Your task to perform on an android device: add a contact in the contacts app Image 0: 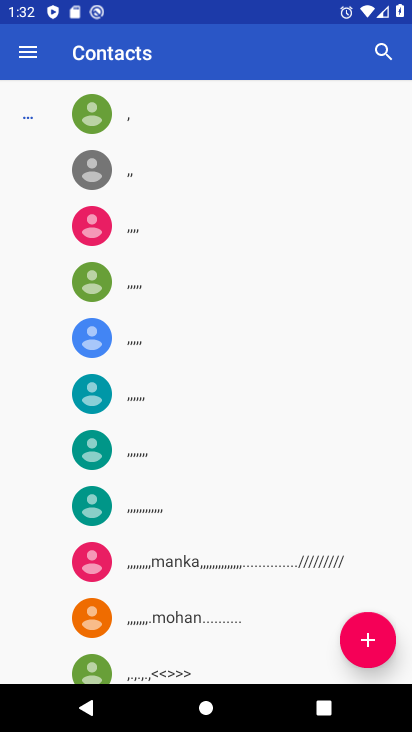
Step 0: click (364, 636)
Your task to perform on an android device: add a contact in the contacts app Image 1: 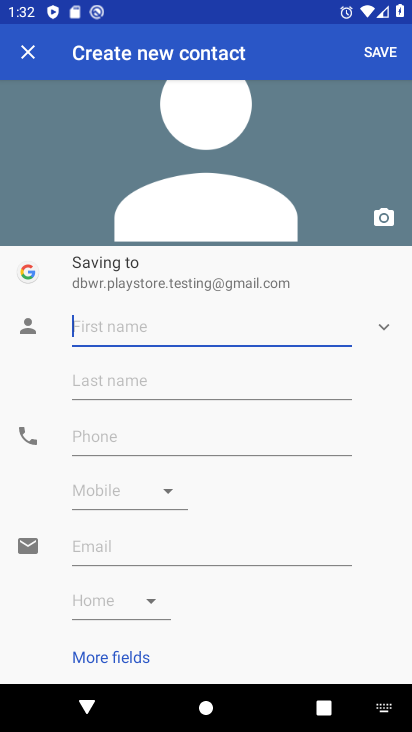
Step 1: type "iop"
Your task to perform on an android device: add a contact in the contacts app Image 2: 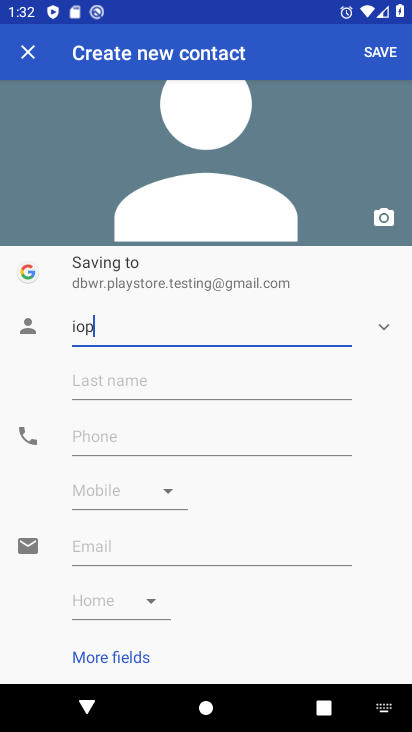
Step 2: type ""
Your task to perform on an android device: add a contact in the contacts app Image 3: 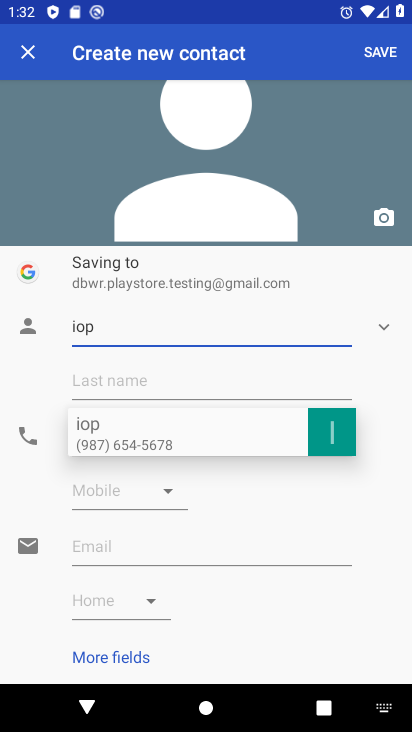
Step 3: click (211, 442)
Your task to perform on an android device: add a contact in the contacts app Image 4: 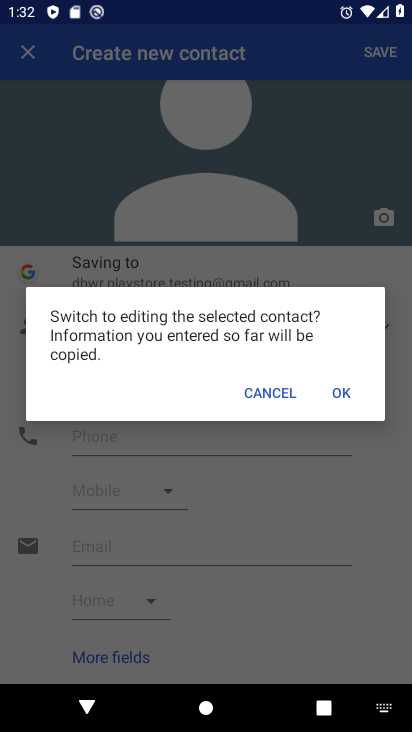
Step 4: click (330, 384)
Your task to perform on an android device: add a contact in the contacts app Image 5: 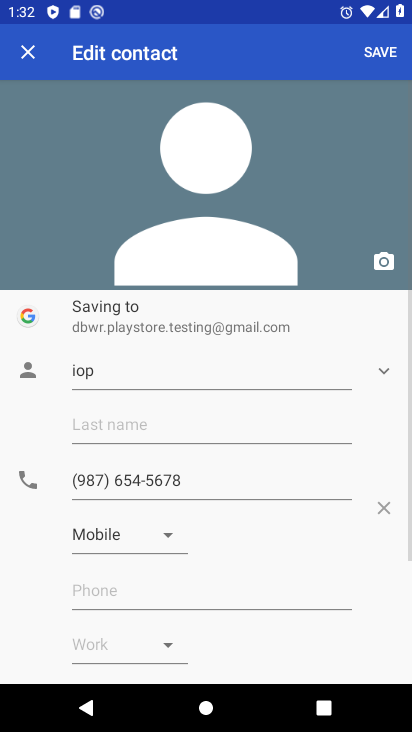
Step 5: click (380, 41)
Your task to perform on an android device: add a contact in the contacts app Image 6: 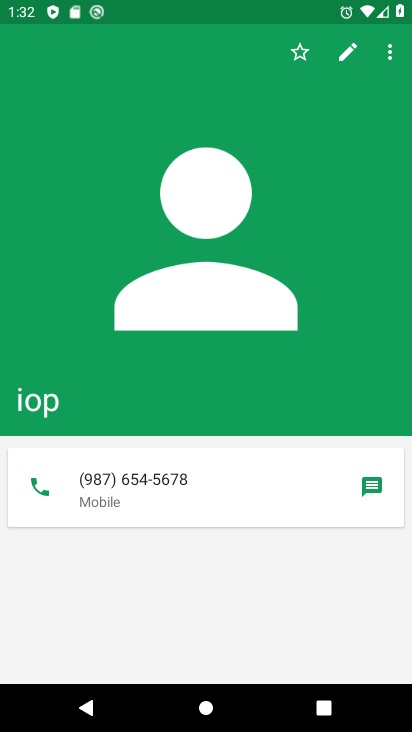
Step 6: task complete